Your task to perform on an android device: Open accessibility settings Image 0: 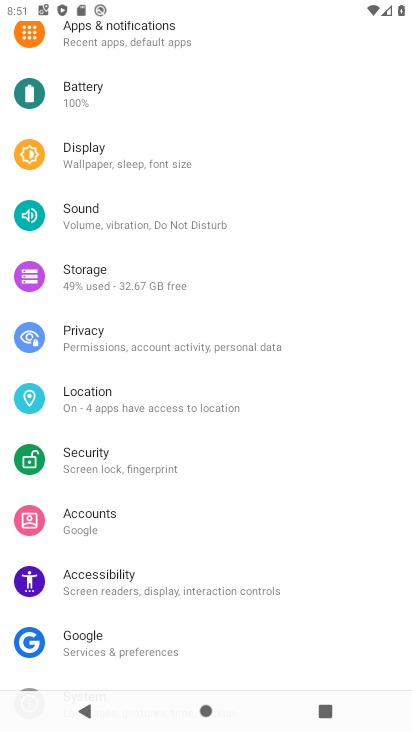
Step 0: click (107, 593)
Your task to perform on an android device: Open accessibility settings Image 1: 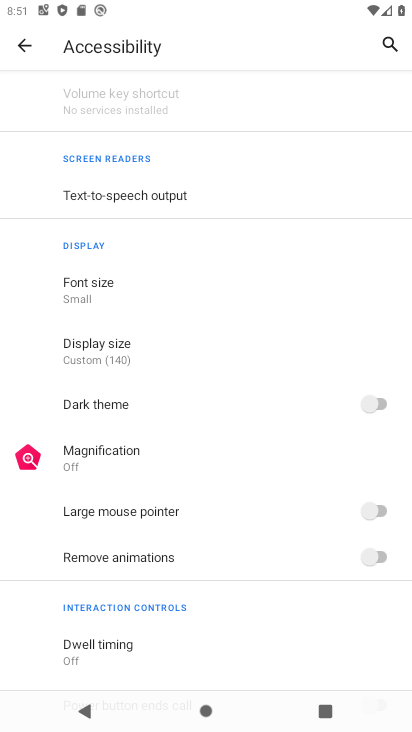
Step 1: task complete